Your task to perform on an android device: Go to wifi settings Image 0: 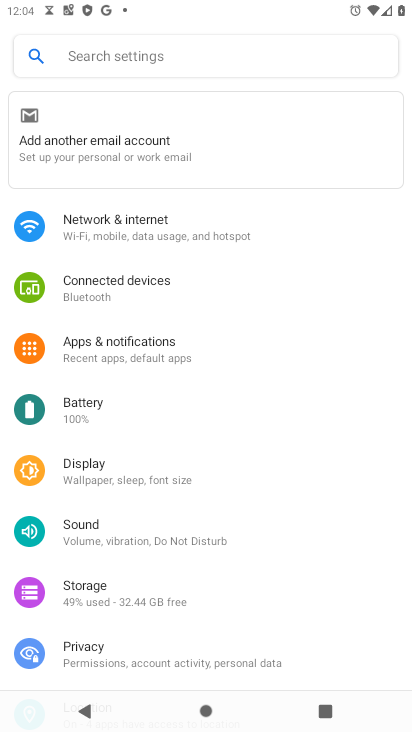
Step 0: press home button
Your task to perform on an android device: Go to wifi settings Image 1: 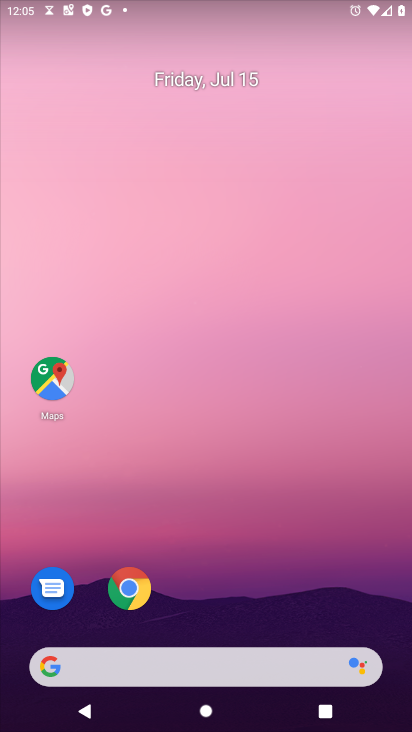
Step 1: drag from (190, 658) to (324, 89)
Your task to perform on an android device: Go to wifi settings Image 2: 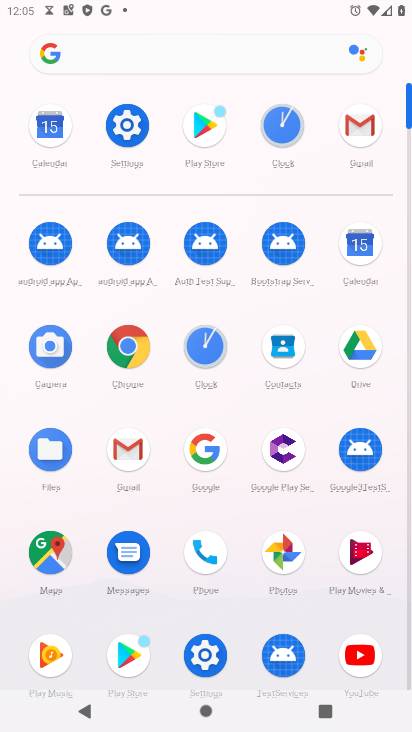
Step 2: click (123, 130)
Your task to perform on an android device: Go to wifi settings Image 3: 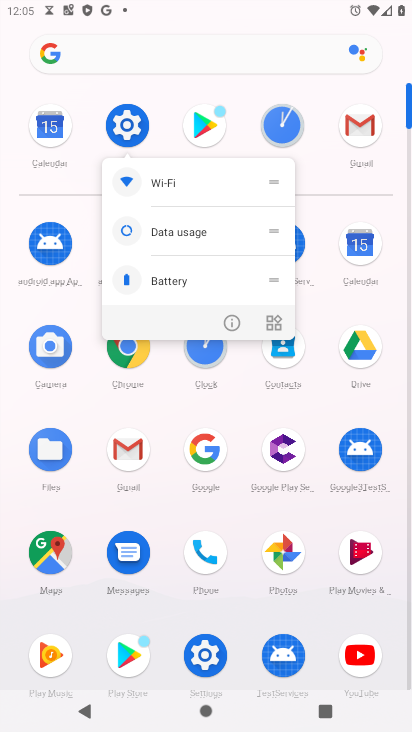
Step 3: click (121, 128)
Your task to perform on an android device: Go to wifi settings Image 4: 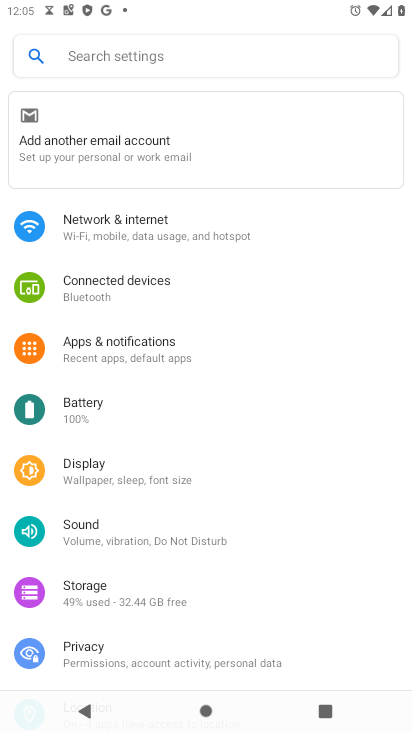
Step 4: click (157, 219)
Your task to perform on an android device: Go to wifi settings Image 5: 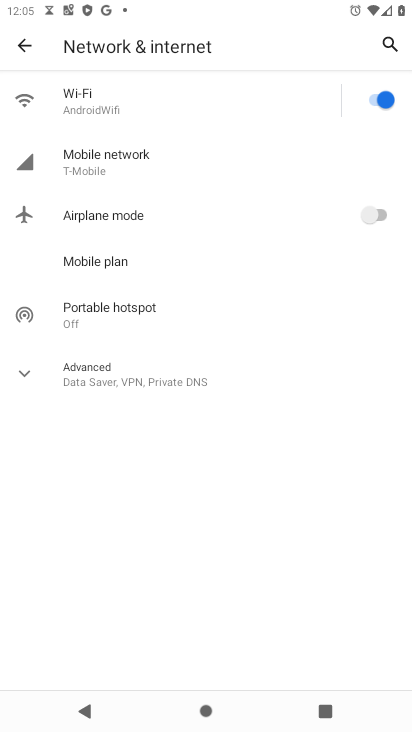
Step 5: click (89, 100)
Your task to perform on an android device: Go to wifi settings Image 6: 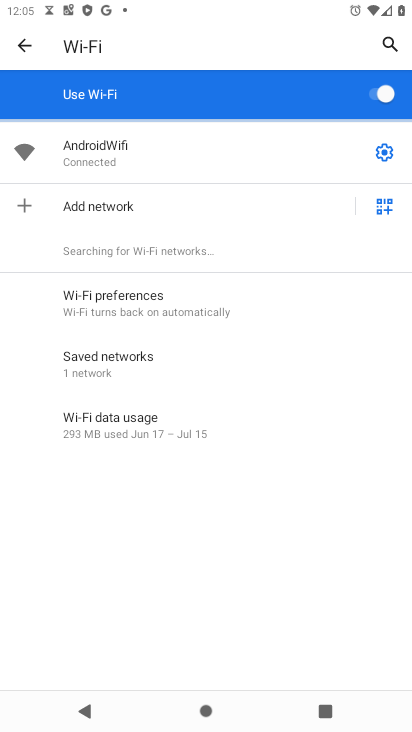
Step 6: task complete